Your task to perform on an android device: Add "beats solo 3" to the cart on ebay.com, then select checkout. Image 0: 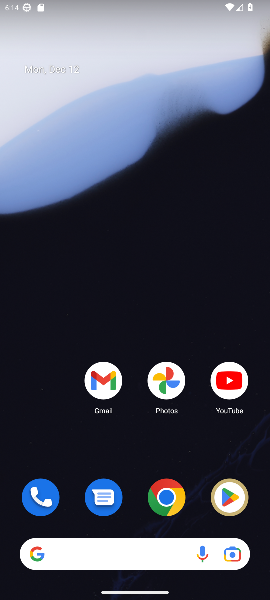
Step 0: drag from (64, 412) to (61, 28)
Your task to perform on an android device: Add "beats solo 3" to the cart on ebay.com, then select checkout. Image 1: 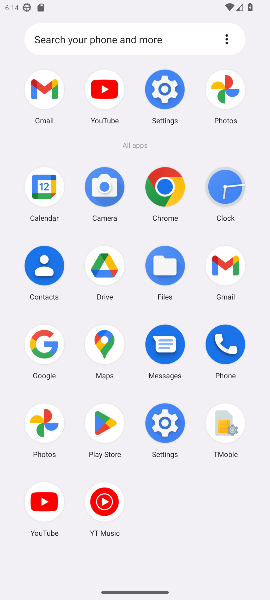
Step 1: click (33, 345)
Your task to perform on an android device: Add "beats solo 3" to the cart on ebay.com, then select checkout. Image 2: 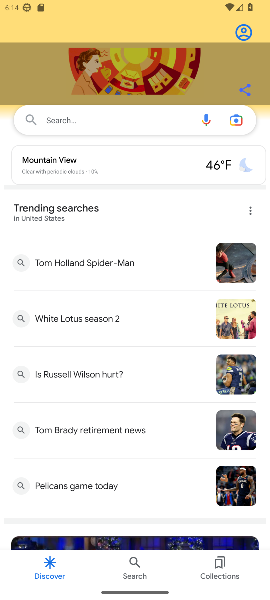
Step 2: click (113, 123)
Your task to perform on an android device: Add "beats solo 3" to the cart on ebay.com, then select checkout. Image 3: 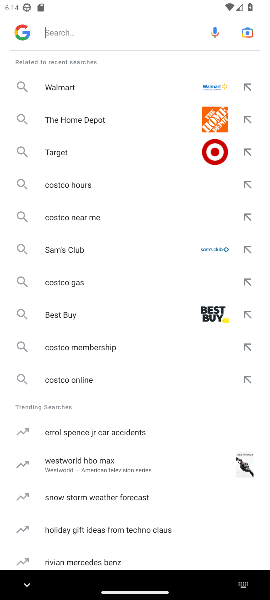
Step 3: type "ebay.com"
Your task to perform on an android device: Add "beats solo 3" to the cart on ebay.com, then select checkout. Image 4: 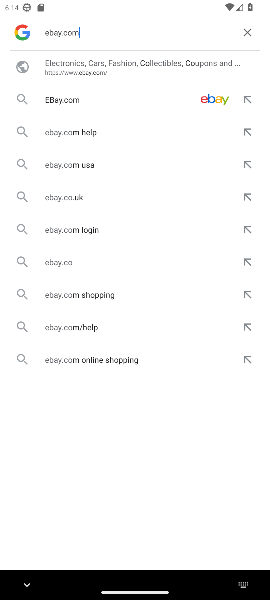
Step 4: press enter
Your task to perform on an android device: Add "beats solo 3" to the cart on ebay.com, then select checkout. Image 5: 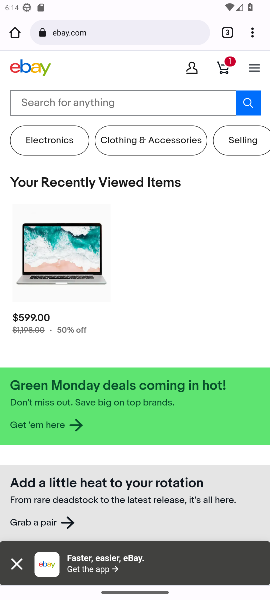
Step 5: click (103, 96)
Your task to perform on an android device: Add "beats solo 3" to the cart on ebay.com, then select checkout. Image 6: 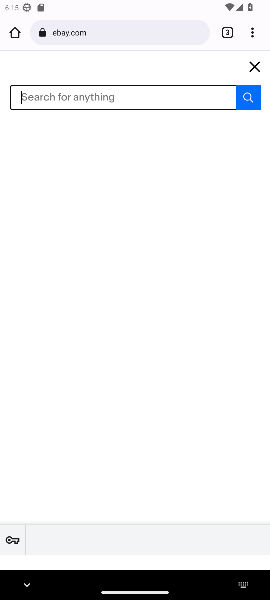
Step 6: type "beats solo 3"
Your task to perform on an android device: Add "beats solo 3" to the cart on ebay.com, then select checkout. Image 7: 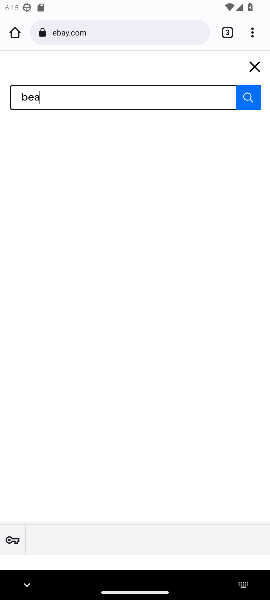
Step 7: press enter
Your task to perform on an android device: Add "beats solo 3" to the cart on ebay.com, then select checkout. Image 8: 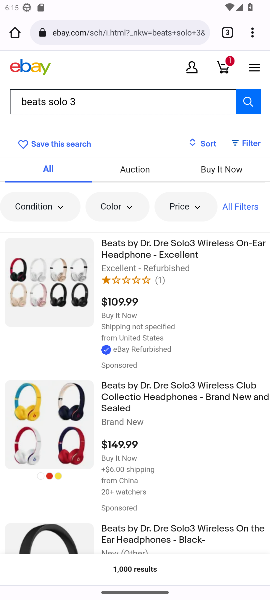
Step 8: click (147, 257)
Your task to perform on an android device: Add "beats solo 3" to the cart on ebay.com, then select checkout. Image 9: 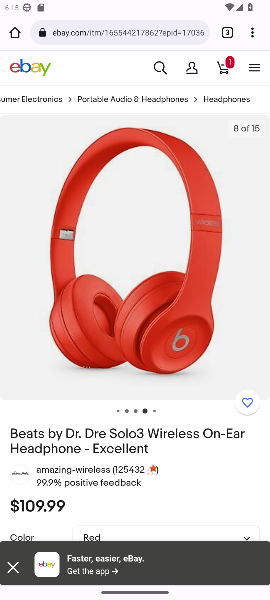
Step 9: drag from (200, 466) to (190, 168)
Your task to perform on an android device: Add "beats solo 3" to the cart on ebay.com, then select checkout. Image 10: 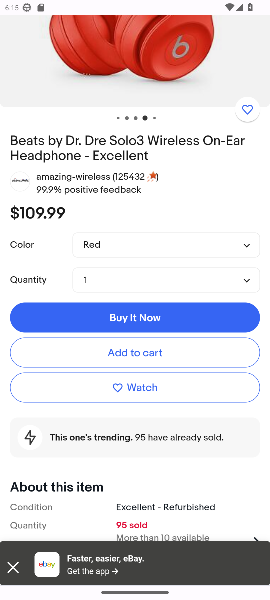
Step 10: click (122, 348)
Your task to perform on an android device: Add "beats solo 3" to the cart on ebay.com, then select checkout. Image 11: 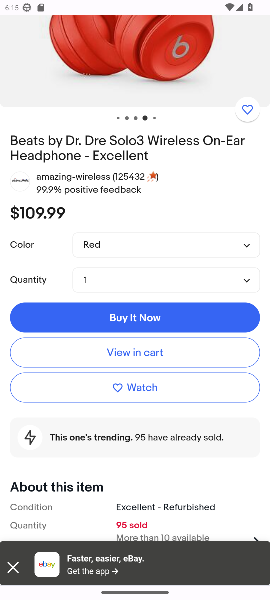
Step 11: task complete